Your task to perform on an android device: Open a new window in Chrome Image 0: 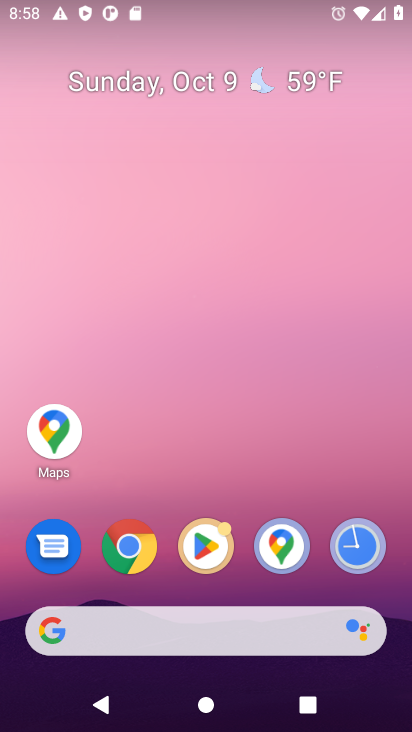
Step 0: click (137, 554)
Your task to perform on an android device: Open a new window in Chrome Image 1: 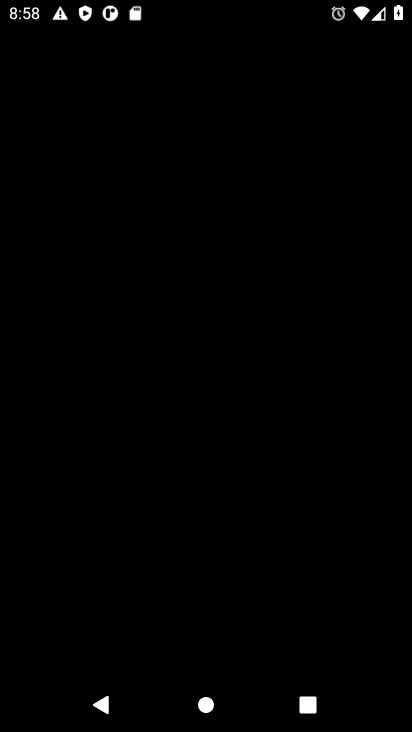
Step 1: press home button
Your task to perform on an android device: Open a new window in Chrome Image 2: 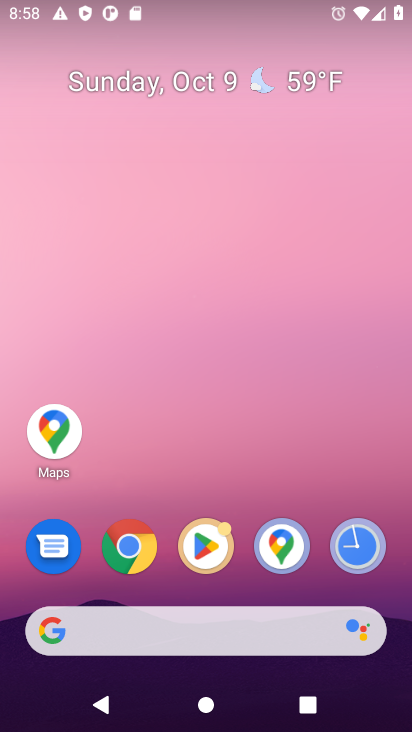
Step 2: click (117, 544)
Your task to perform on an android device: Open a new window in Chrome Image 3: 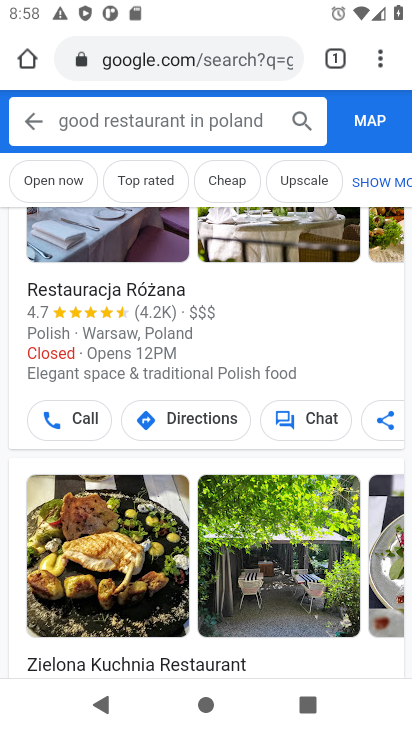
Step 3: click (386, 53)
Your task to perform on an android device: Open a new window in Chrome Image 4: 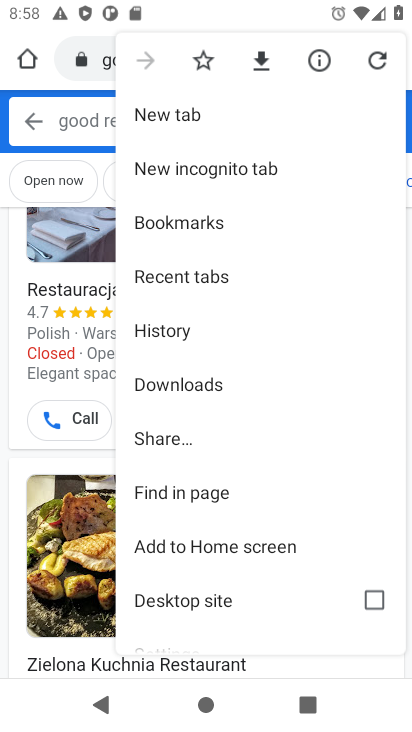
Step 4: click (206, 122)
Your task to perform on an android device: Open a new window in Chrome Image 5: 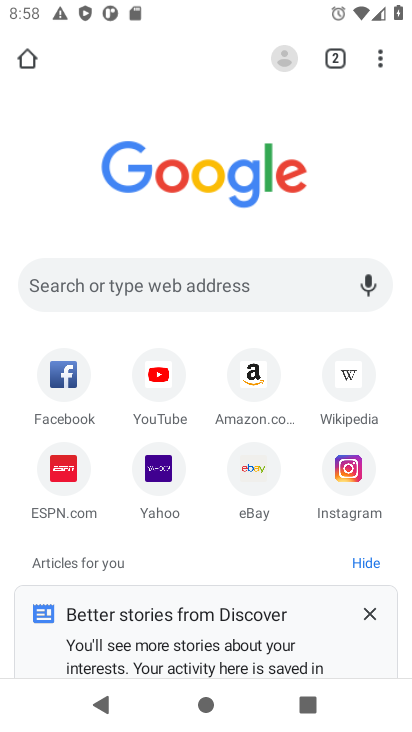
Step 5: task complete